Your task to perform on an android device: Find coffee shops on Maps Image 0: 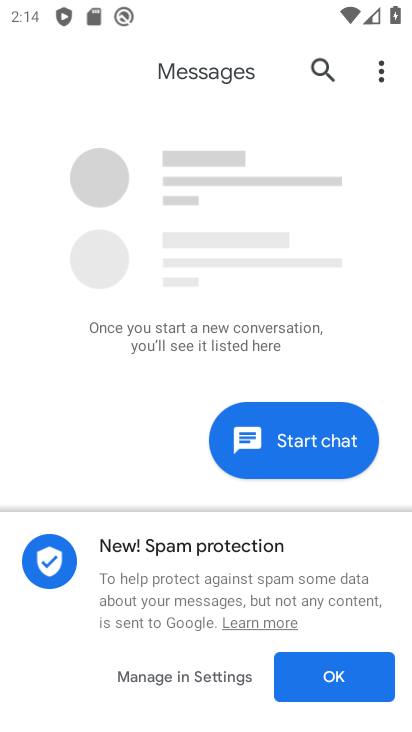
Step 0: press home button
Your task to perform on an android device: Find coffee shops on Maps Image 1: 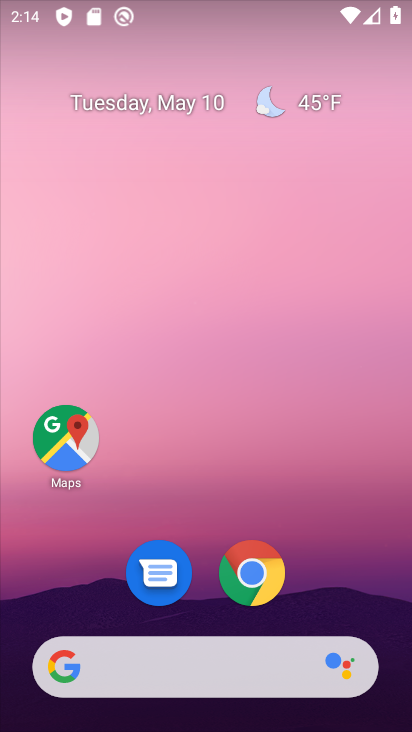
Step 1: click (85, 445)
Your task to perform on an android device: Find coffee shops on Maps Image 2: 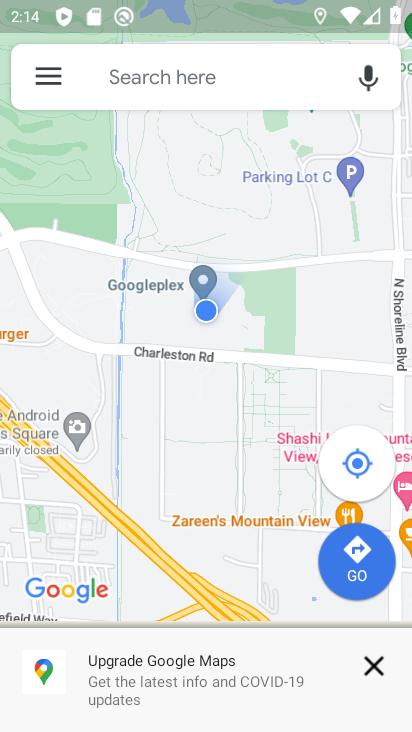
Step 2: click (158, 83)
Your task to perform on an android device: Find coffee shops on Maps Image 3: 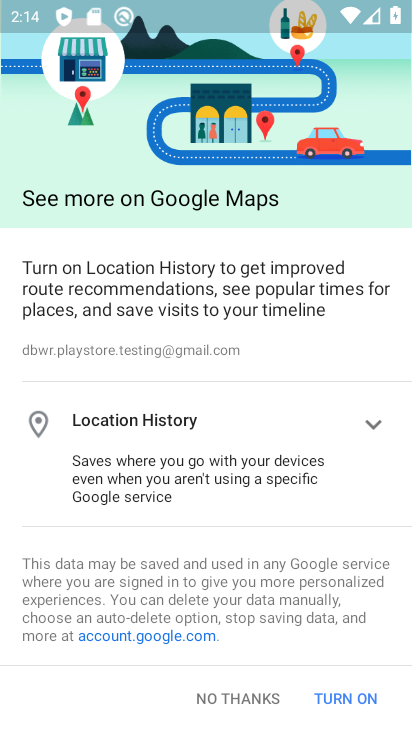
Step 3: type "coffee shops"
Your task to perform on an android device: Find coffee shops on Maps Image 4: 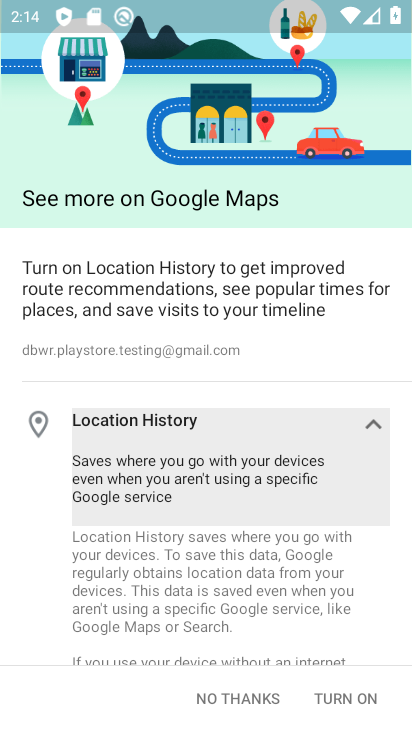
Step 4: click (341, 698)
Your task to perform on an android device: Find coffee shops on Maps Image 5: 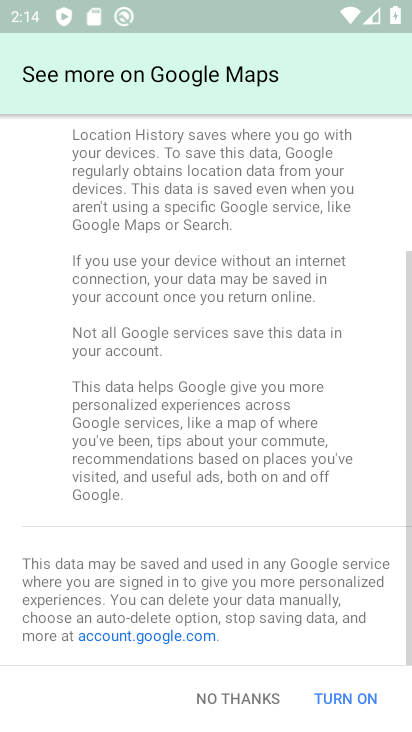
Step 5: click (343, 696)
Your task to perform on an android device: Find coffee shops on Maps Image 6: 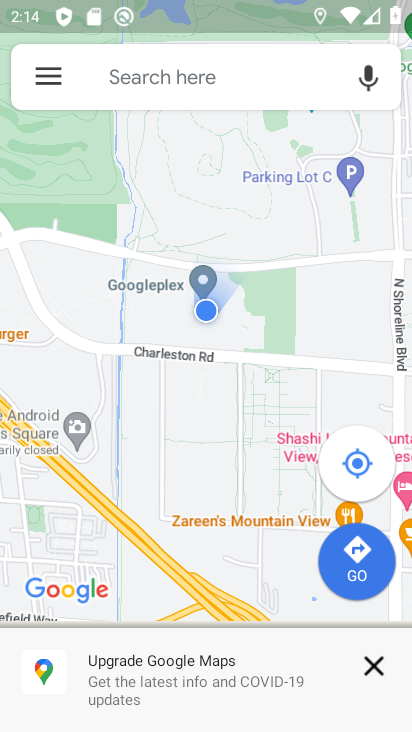
Step 6: click (124, 80)
Your task to perform on an android device: Find coffee shops on Maps Image 7: 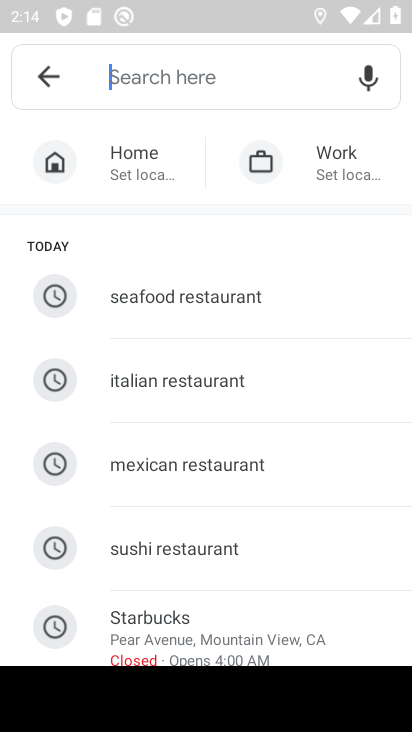
Step 7: type "coffee shop"
Your task to perform on an android device: Find coffee shops on Maps Image 8: 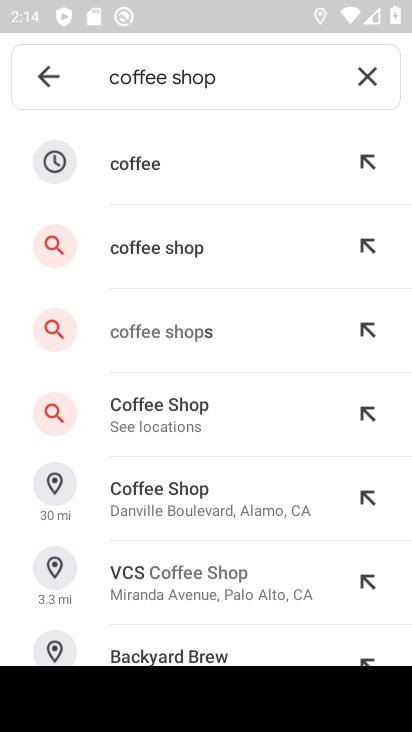
Step 8: click (207, 242)
Your task to perform on an android device: Find coffee shops on Maps Image 9: 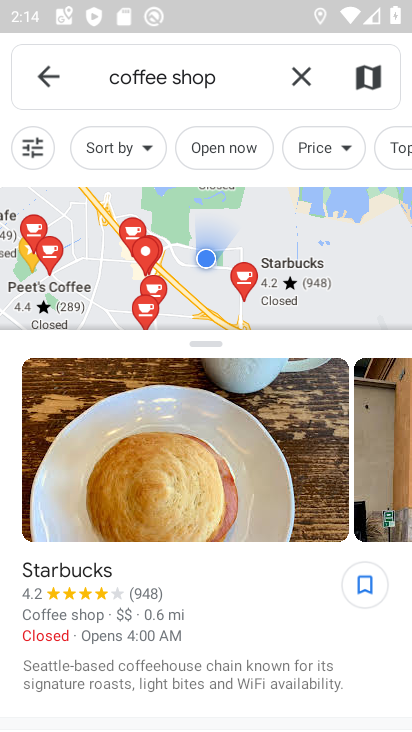
Step 9: task complete